Your task to perform on an android device: Go to location settings Image 0: 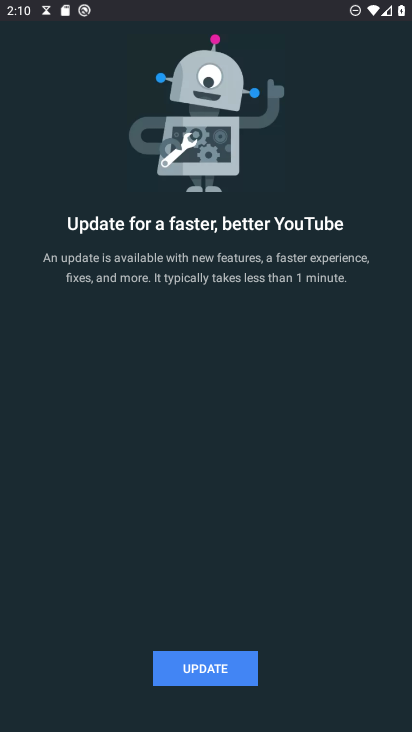
Step 0: press home button
Your task to perform on an android device: Go to location settings Image 1: 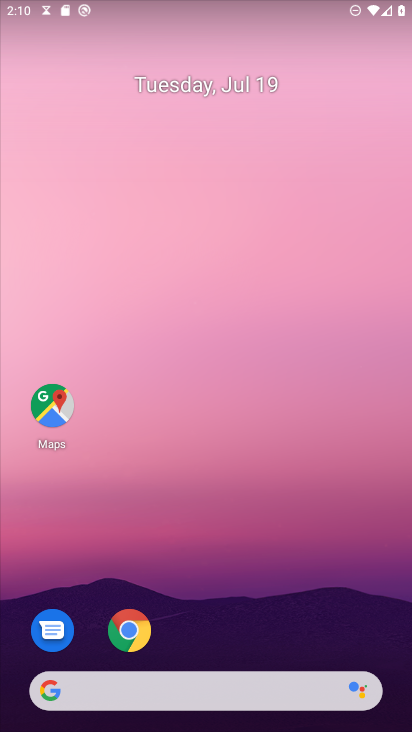
Step 1: drag from (212, 658) to (262, 73)
Your task to perform on an android device: Go to location settings Image 2: 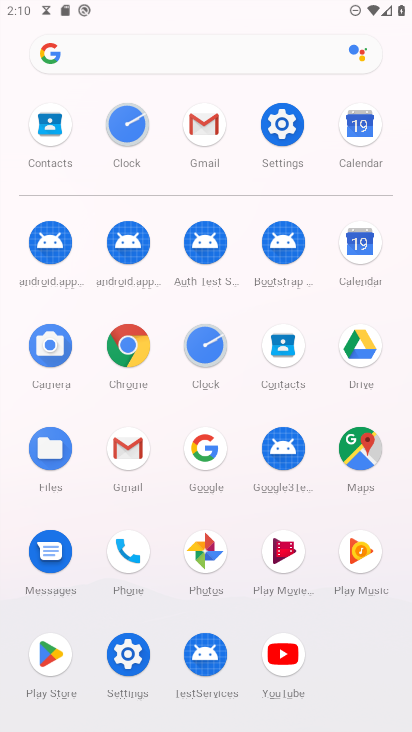
Step 2: click (278, 128)
Your task to perform on an android device: Go to location settings Image 3: 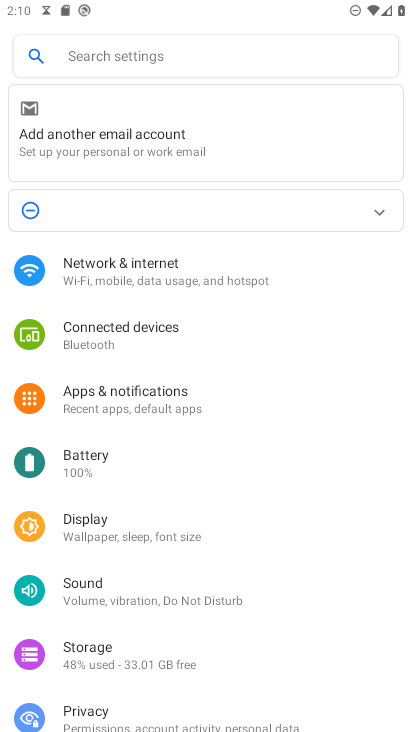
Step 3: drag from (205, 534) to (255, 178)
Your task to perform on an android device: Go to location settings Image 4: 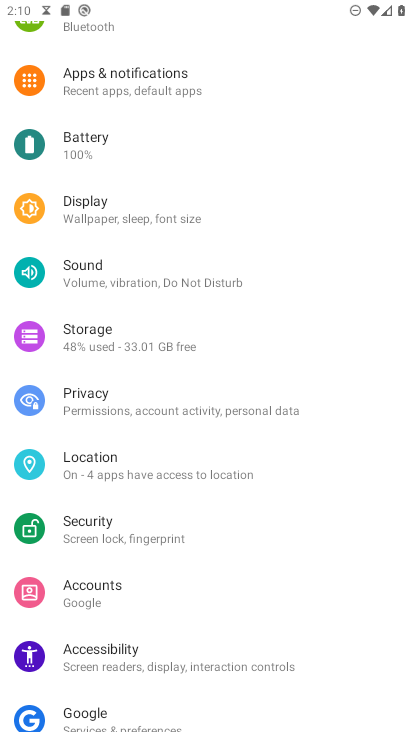
Step 4: click (126, 464)
Your task to perform on an android device: Go to location settings Image 5: 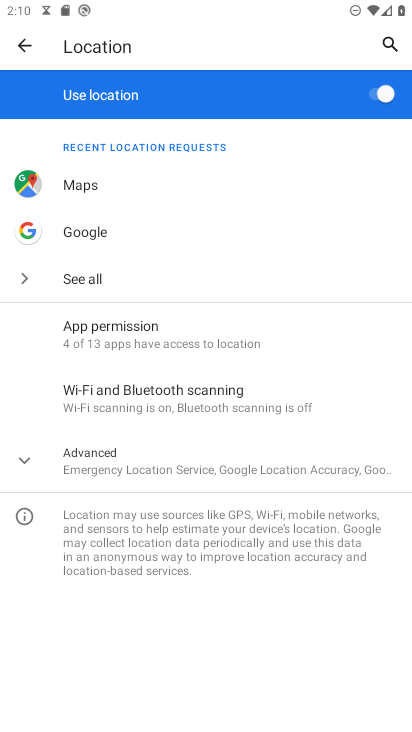
Step 5: task complete